Your task to perform on an android device: install app "Move to iOS" Image 0: 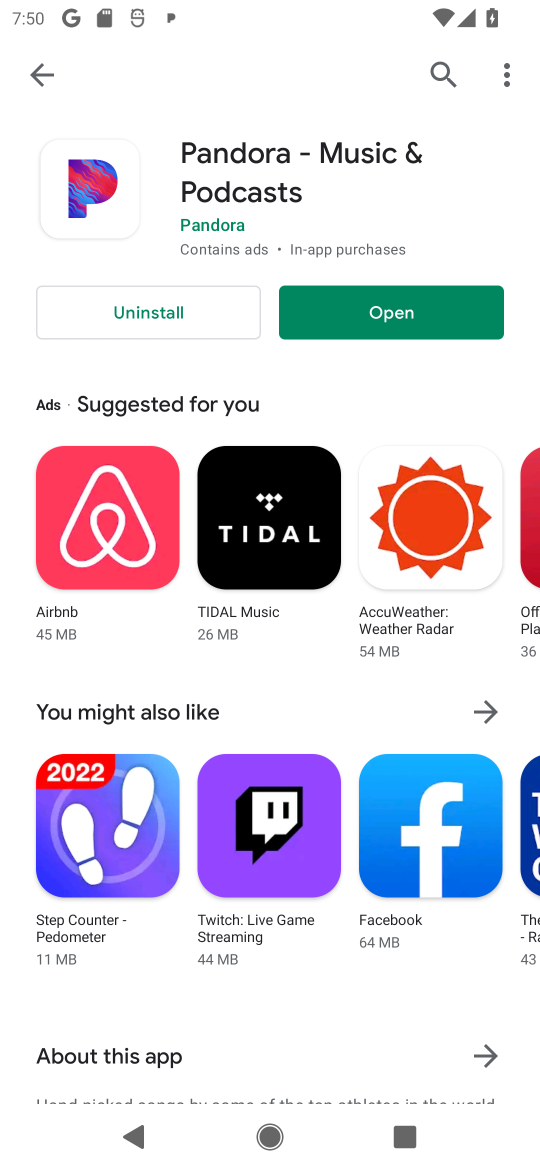
Step 0: click (46, 70)
Your task to perform on an android device: install app "Move to iOS" Image 1: 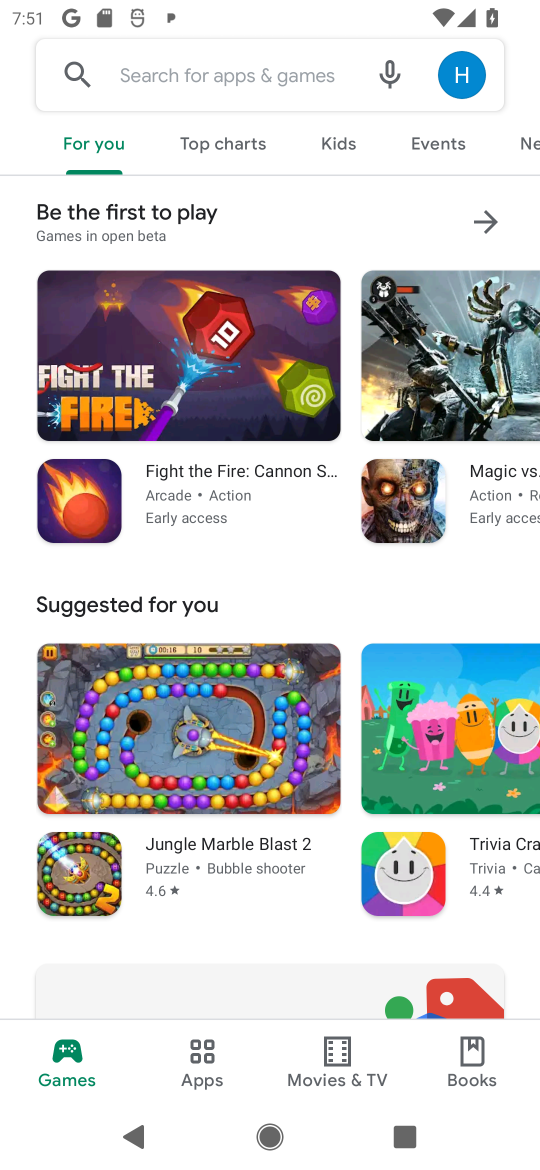
Step 1: click (123, 78)
Your task to perform on an android device: install app "Move to iOS" Image 2: 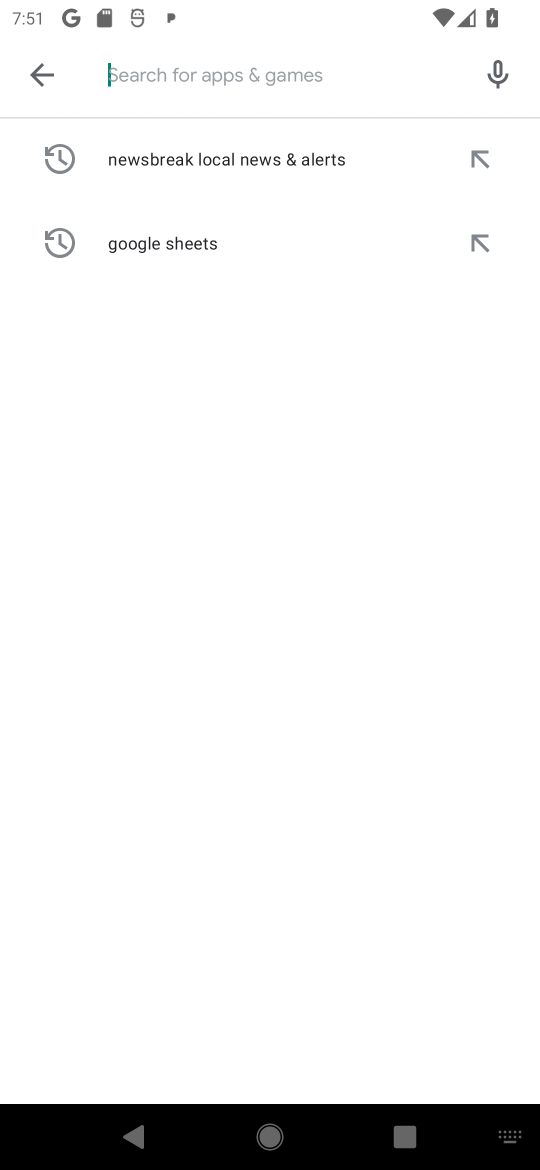
Step 2: type "Move to iOS"
Your task to perform on an android device: install app "Move to iOS" Image 3: 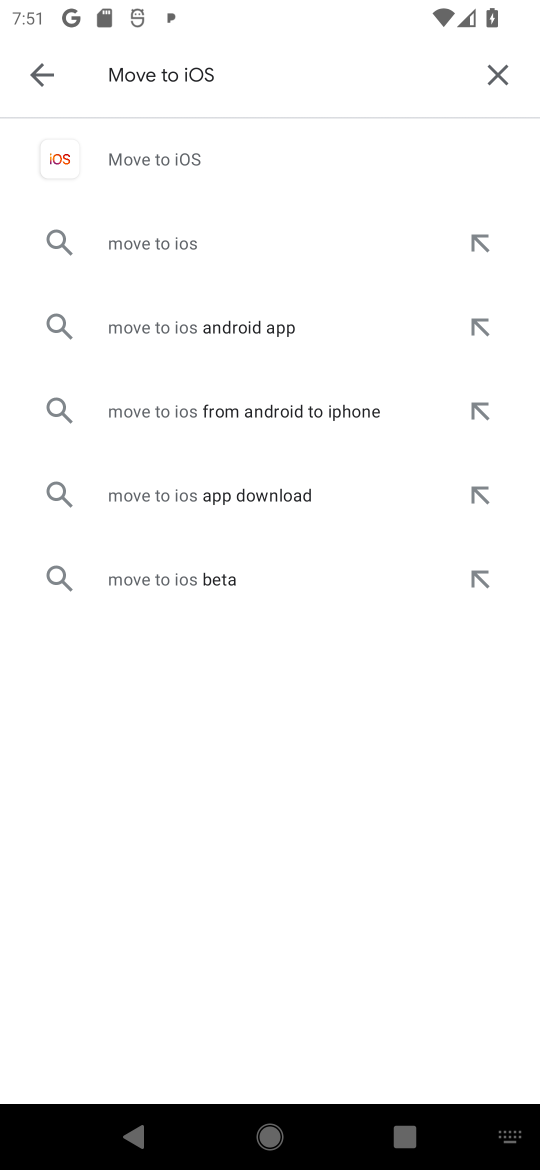
Step 3: click (175, 168)
Your task to perform on an android device: install app "Move to iOS" Image 4: 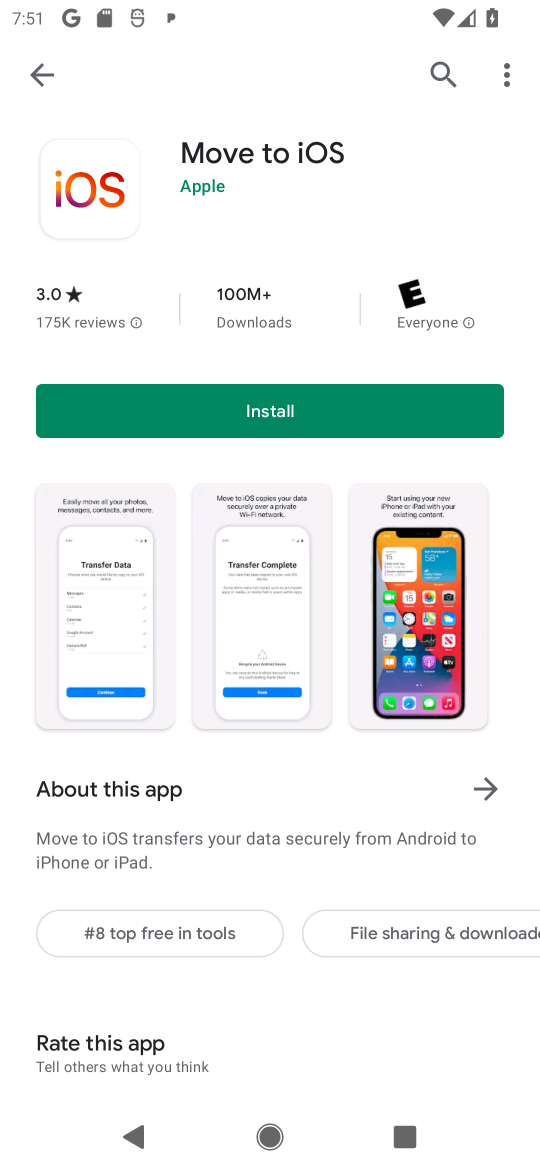
Step 4: click (255, 412)
Your task to perform on an android device: install app "Move to iOS" Image 5: 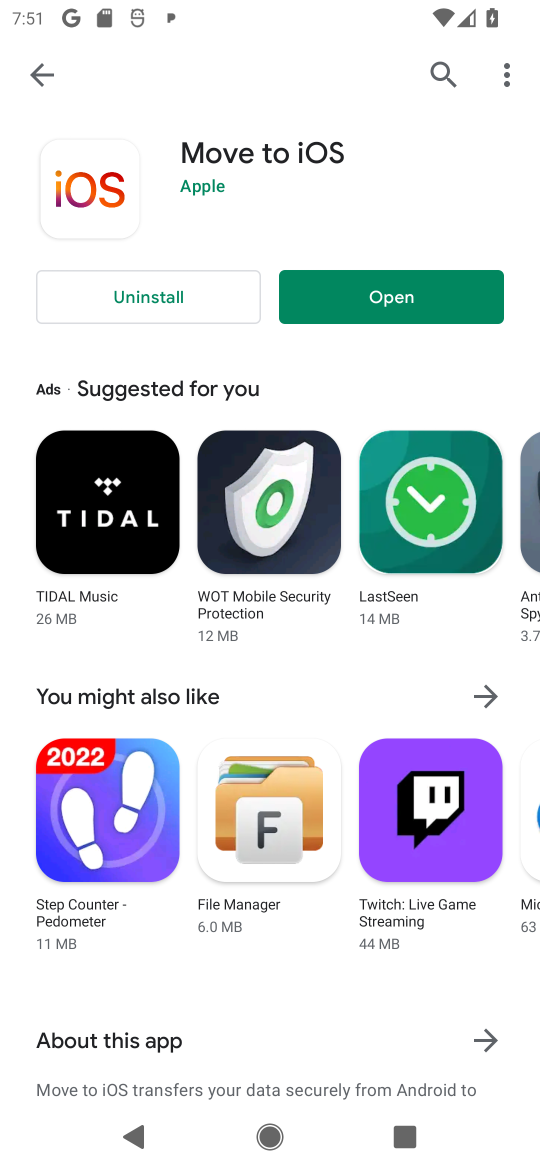
Step 5: click (381, 302)
Your task to perform on an android device: install app "Move to iOS" Image 6: 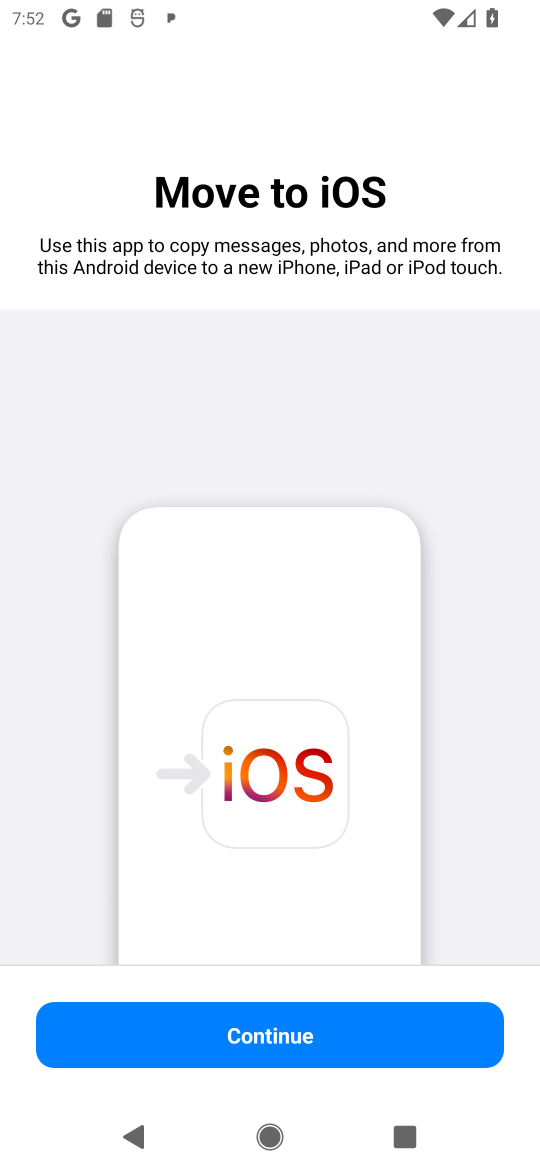
Step 6: click (252, 1028)
Your task to perform on an android device: install app "Move to iOS" Image 7: 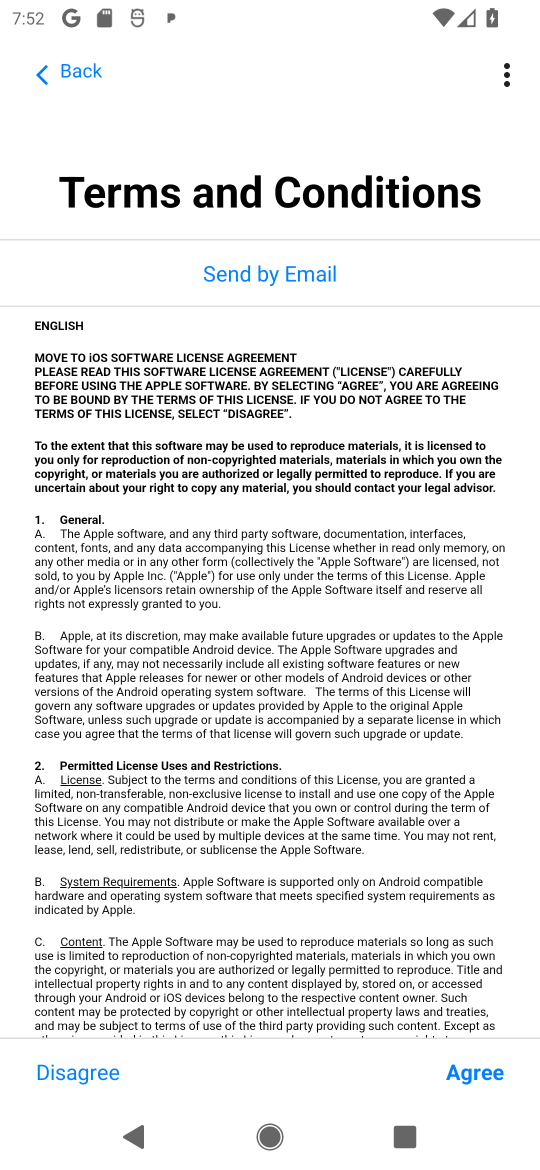
Step 7: task complete